Your task to perform on an android device: Open Google Maps and go to "Timeline" Image 0: 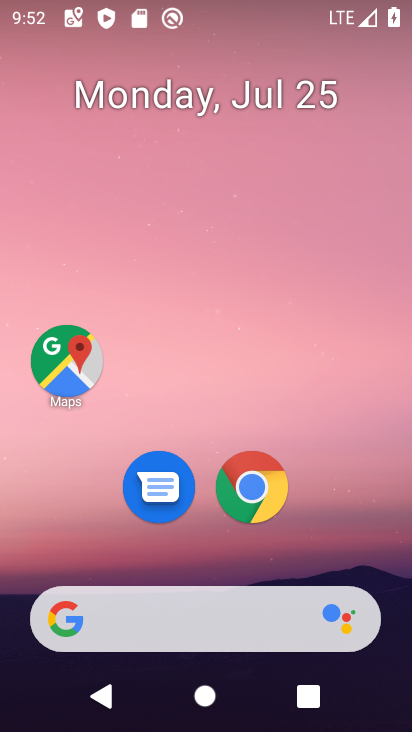
Step 0: click (77, 348)
Your task to perform on an android device: Open Google Maps and go to "Timeline" Image 1: 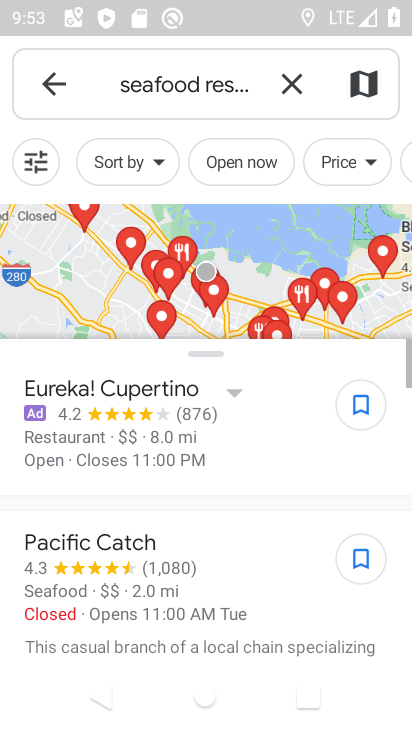
Step 1: click (57, 74)
Your task to perform on an android device: Open Google Maps and go to "Timeline" Image 2: 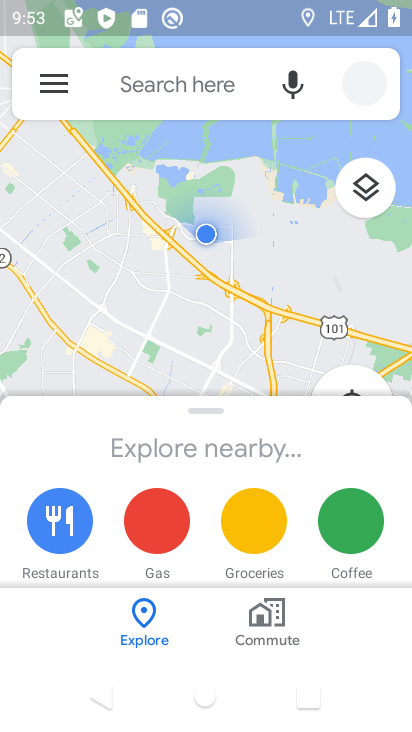
Step 2: click (57, 74)
Your task to perform on an android device: Open Google Maps and go to "Timeline" Image 3: 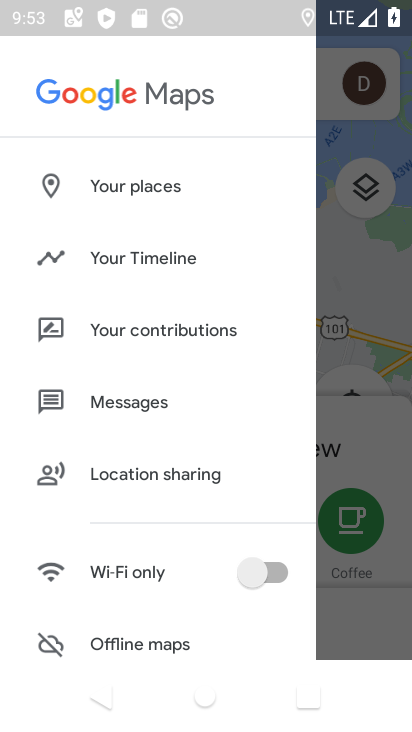
Step 3: click (133, 255)
Your task to perform on an android device: Open Google Maps and go to "Timeline" Image 4: 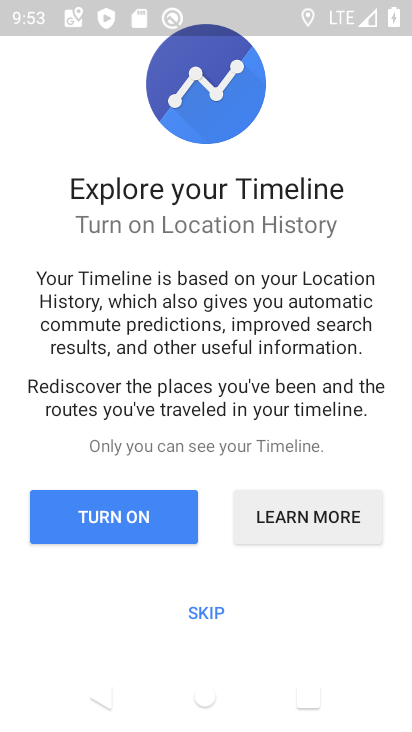
Step 4: task complete